Your task to perform on an android device: Open eBay Image 0: 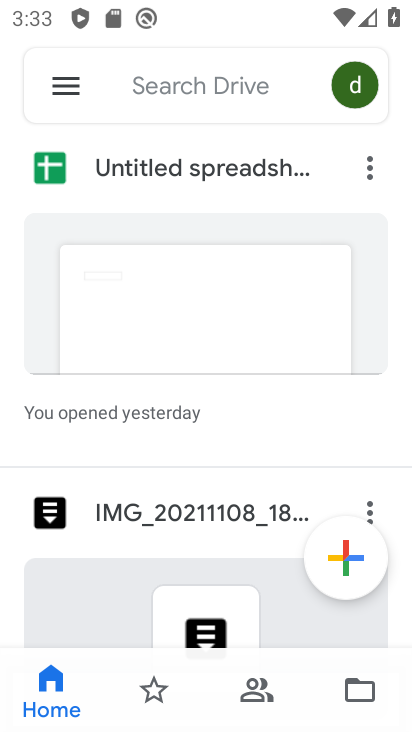
Step 0: press home button
Your task to perform on an android device: Open eBay Image 1: 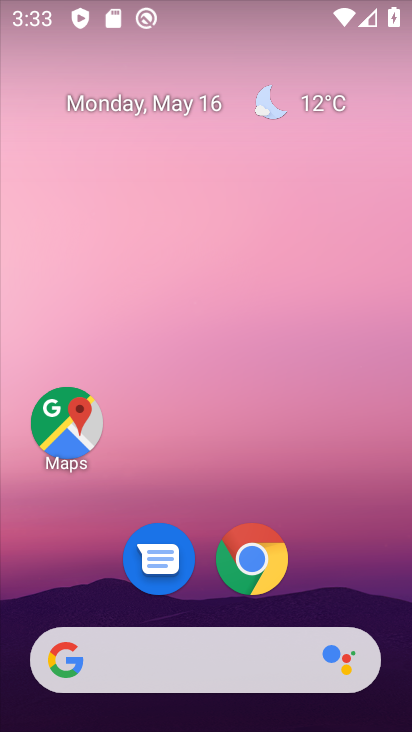
Step 1: click (269, 564)
Your task to perform on an android device: Open eBay Image 2: 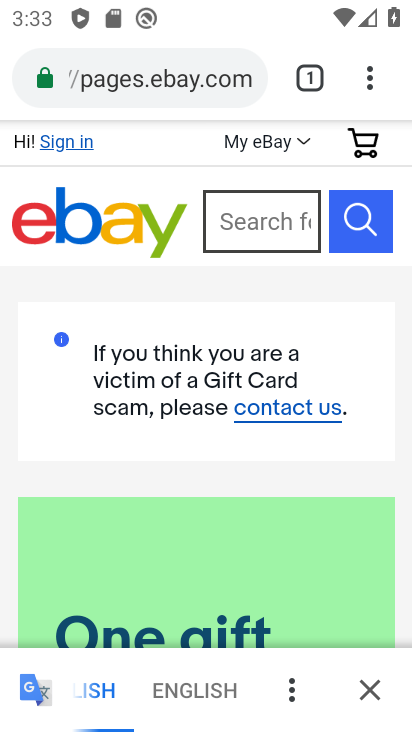
Step 2: task complete